Your task to perform on an android device: turn off wifi Image 0: 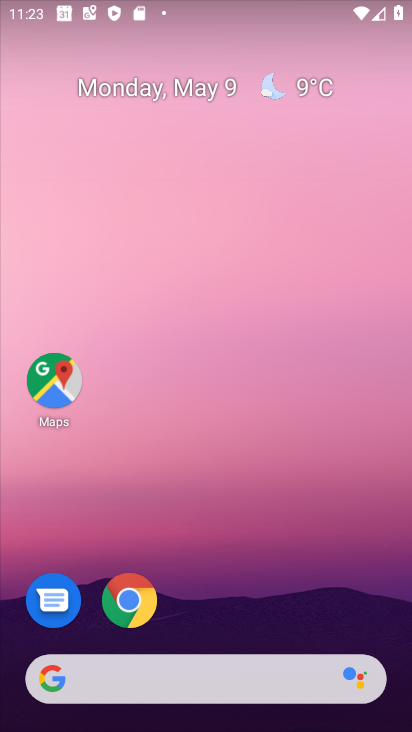
Step 0: drag from (396, 613) to (292, 114)
Your task to perform on an android device: turn off wifi Image 1: 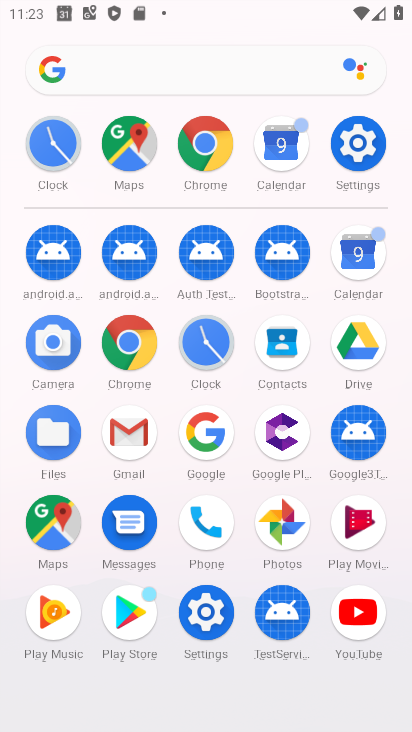
Step 1: click (349, 133)
Your task to perform on an android device: turn off wifi Image 2: 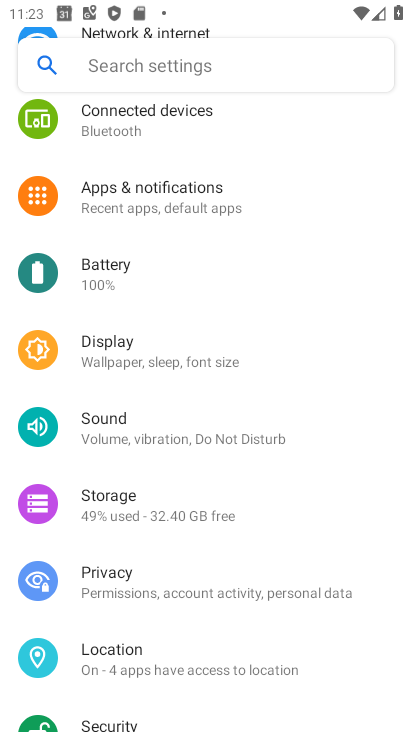
Step 2: drag from (284, 160) to (304, 625)
Your task to perform on an android device: turn off wifi Image 3: 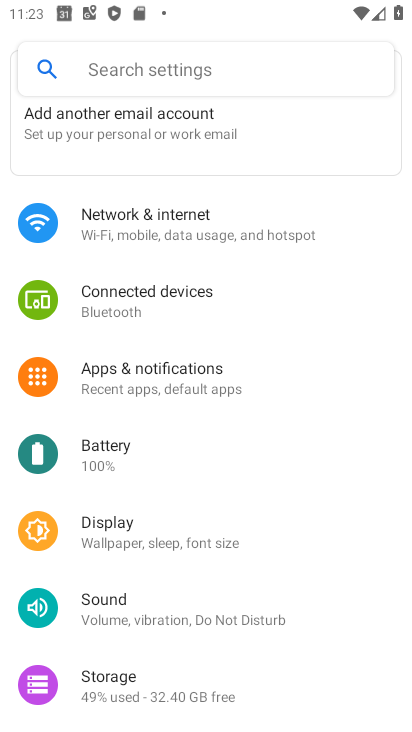
Step 3: click (151, 229)
Your task to perform on an android device: turn off wifi Image 4: 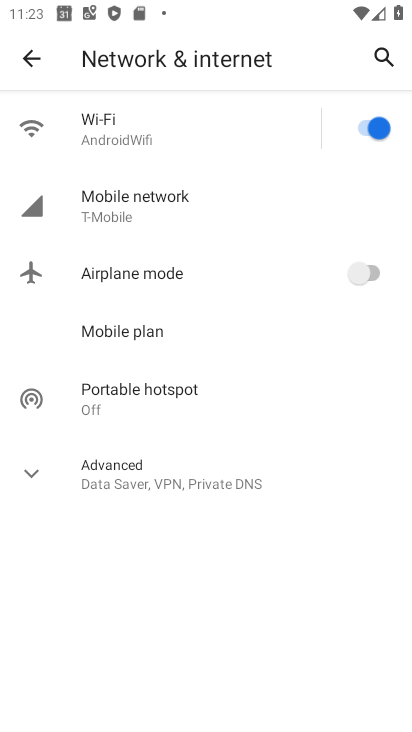
Step 4: click (363, 129)
Your task to perform on an android device: turn off wifi Image 5: 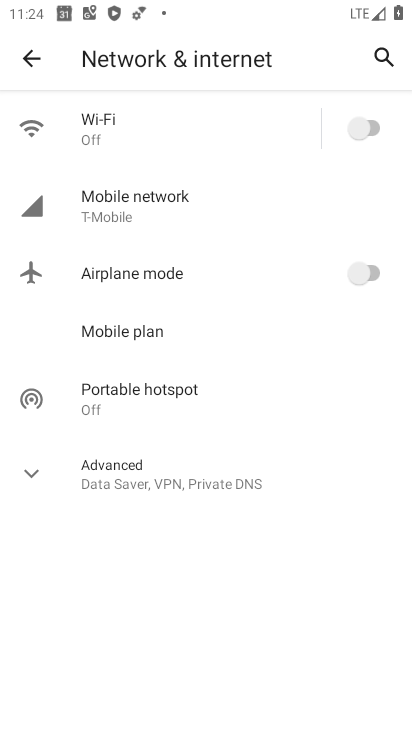
Step 5: task complete